Your task to perform on an android device: Go to Wikipedia Image 0: 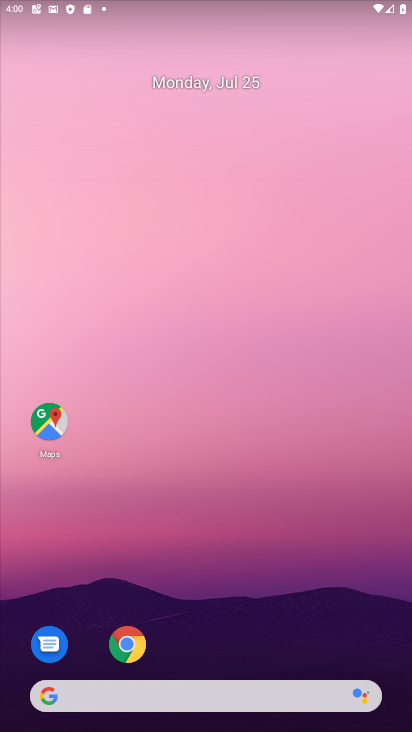
Step 0: press home button
Your task to perform on an android device: Go to Wikipedia Image 1: 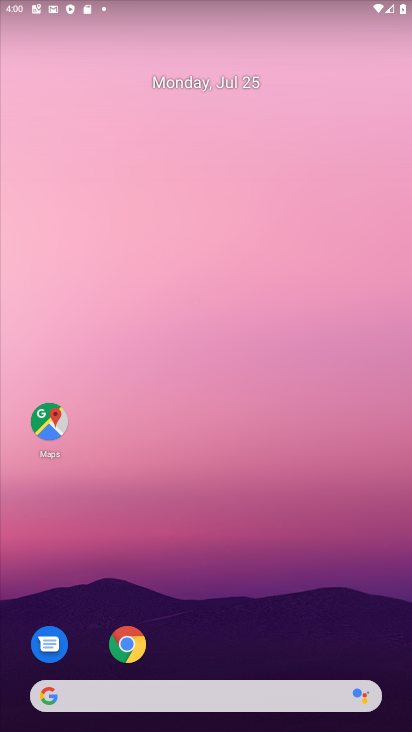
Step 1: click (47, 699)
Your task to perform on an android device: Go to Wikipedia Image 2: 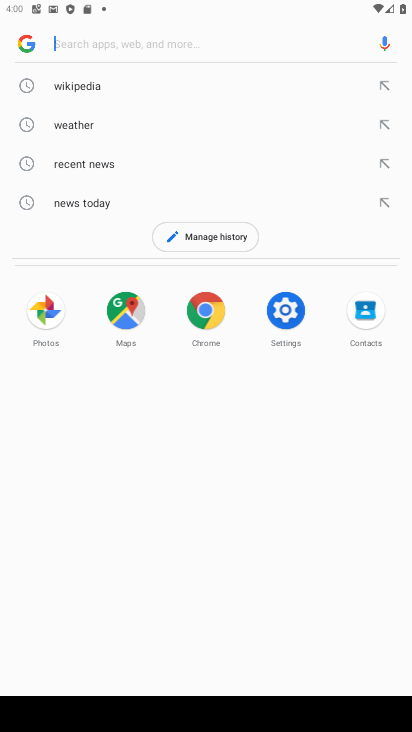
Step 2: click (91, 87)
Your task to perform on an android device: Go to Wikipedia Image 3: 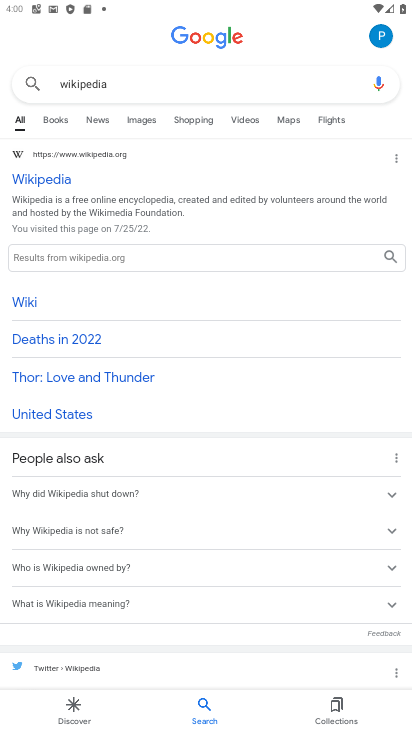
Step 3: click (51, 179)
Your task to perform on an android device: Go to Wikipedia Image 4: 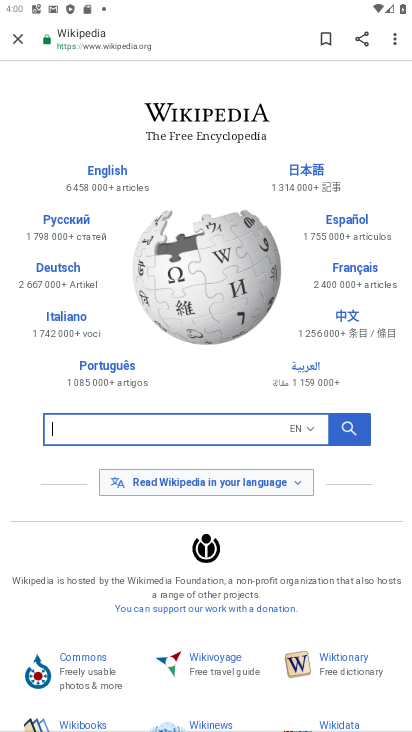
Step 4: task complete